Your task to perform on an android device: Turn on the flashlight Image 0: 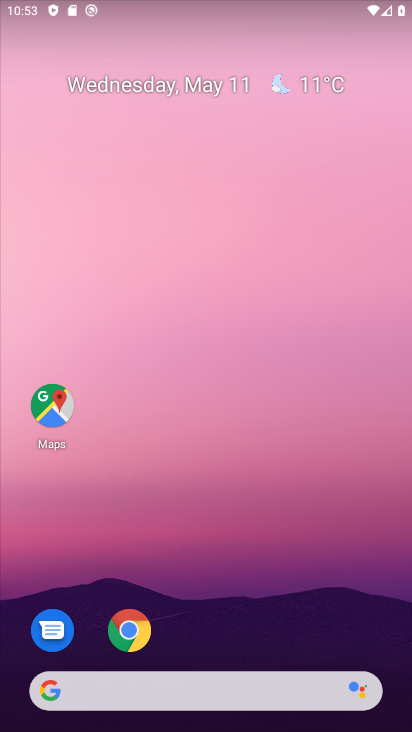
Step 0: drag from (192, 650) to (201, 279)
Your task to perform on an android device: Turn on the flashlight Image 1: 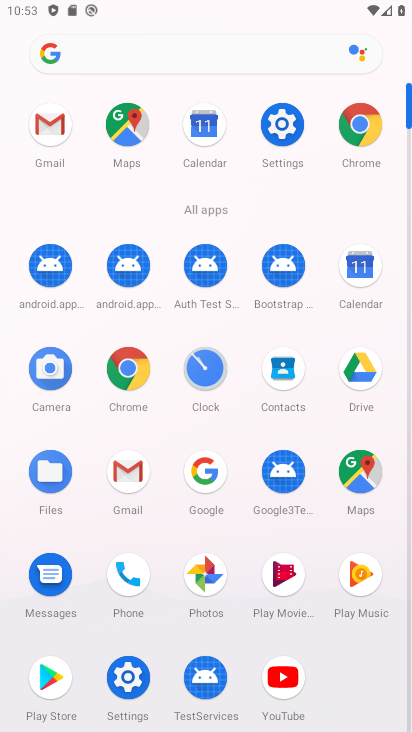
Step 1: click (141, 675)
Your task to perform on an android device: Turn on the flashlight Image 2: 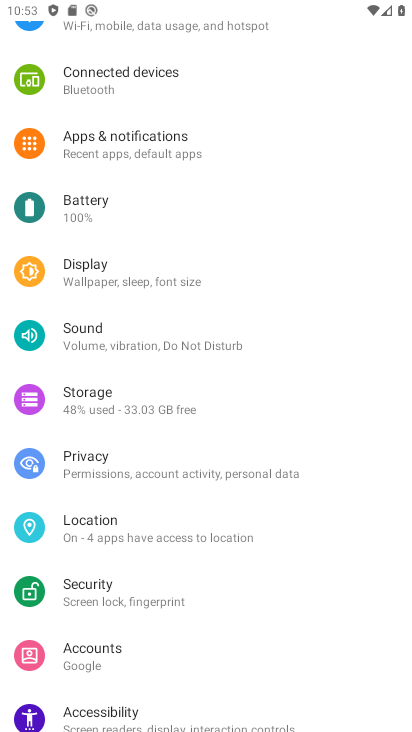
Step 2: click (135, 269)
Your task to perform on an android device: Turn on the flashlight Image 3: 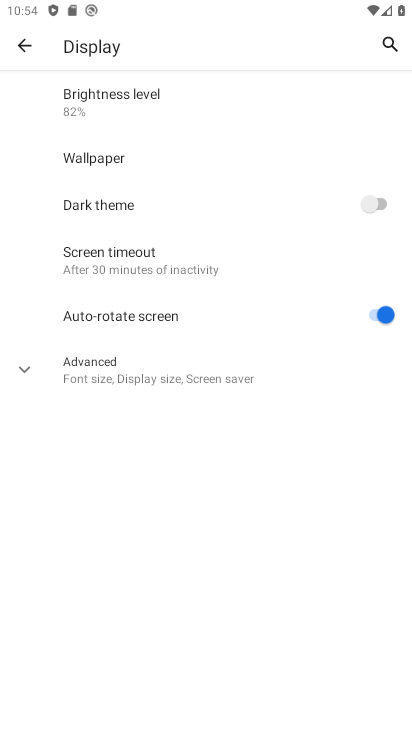
Step 3: task complete